Your task to perform on an android device: star an email in the gmail app Image 0: 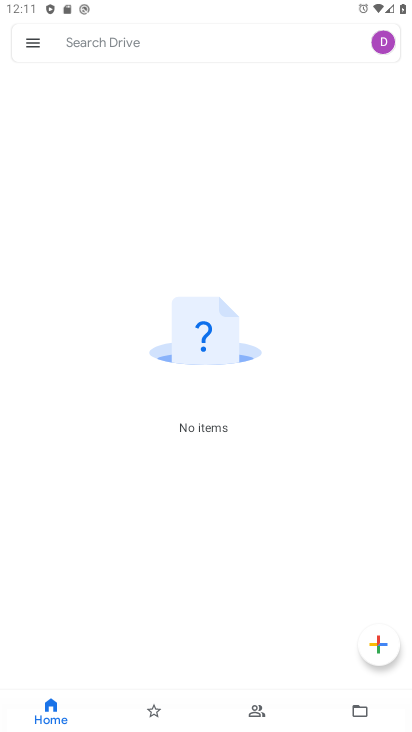
Step 0: press home button
Your task to perform on an android device: star an email in the gmail app Image 1: 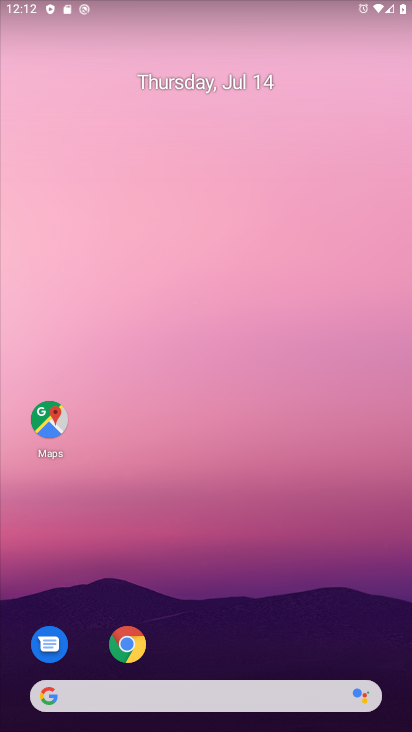
Step 1: drag from (202, 654) to (163, 184)
Your task to perform on an android device: star an email in the gmail app Image 2: 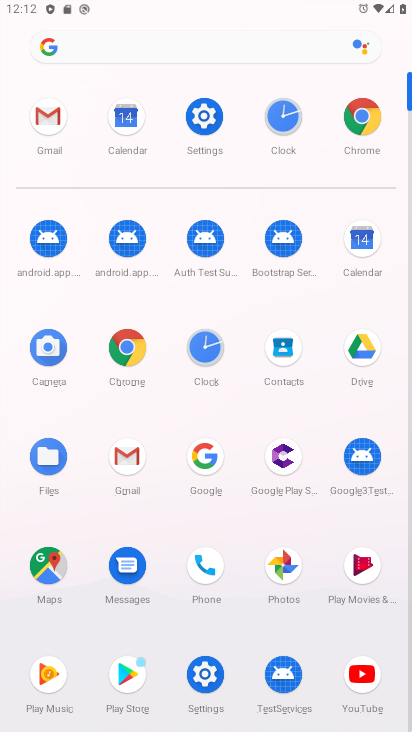
Step 2: click (127, 472)
Your task to perform on an android device: star an email in the gmail app Image 3: 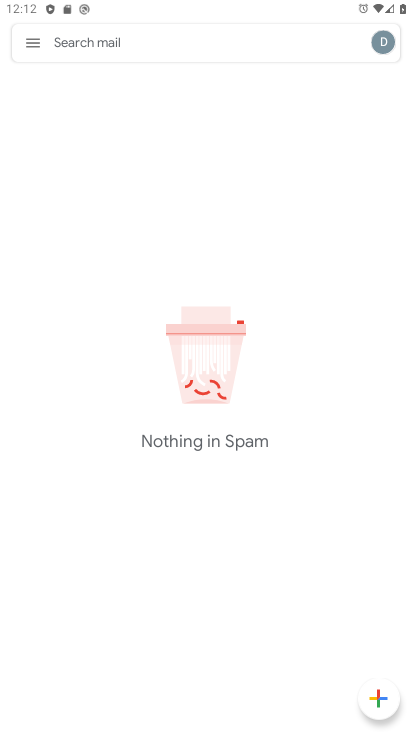
Step 3: click (28, 41)
Your task to perform on an android device: star an email in the gmail app Image 4: 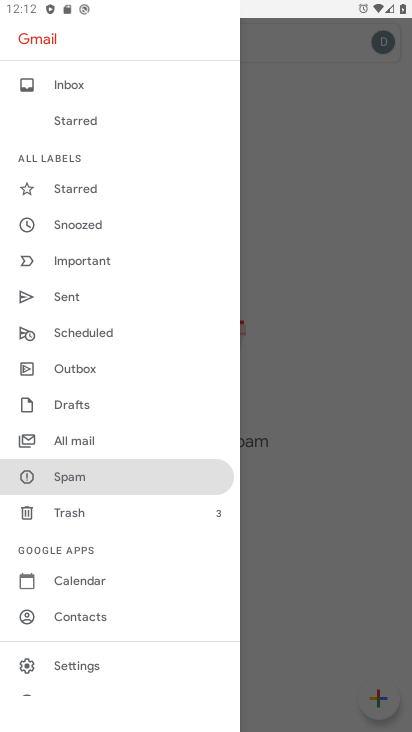
Step 4: click (74, 433)
Your task to perform on an android device: star an email in the gmail app Image 5: 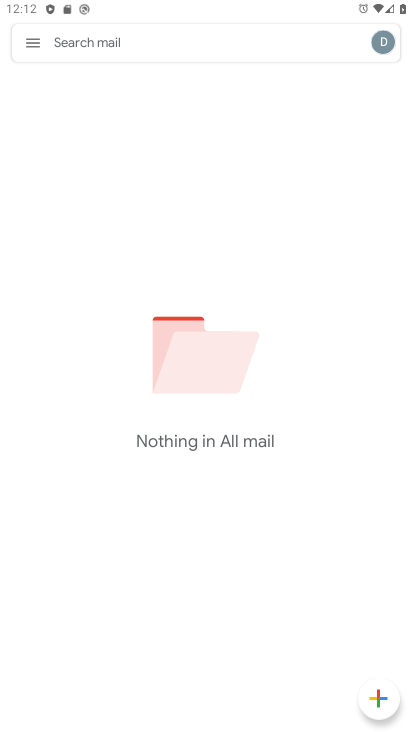
Step 5: task complete